Your task to perform on an android device: Open the stopwatch Image 0: 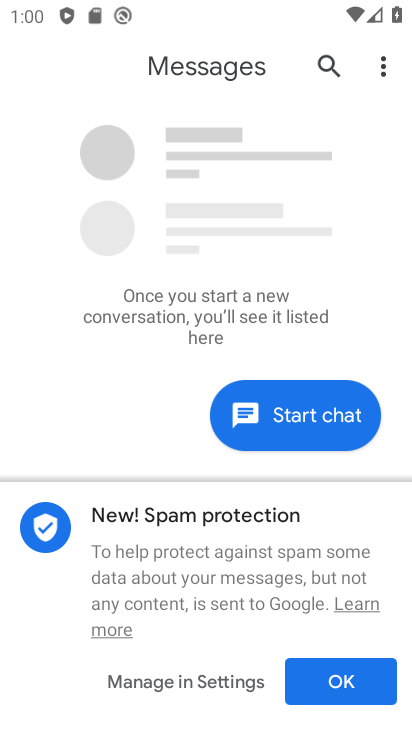
Step 0: press home button
Your task to perform on an android device: Open the stopwatch Image 1: 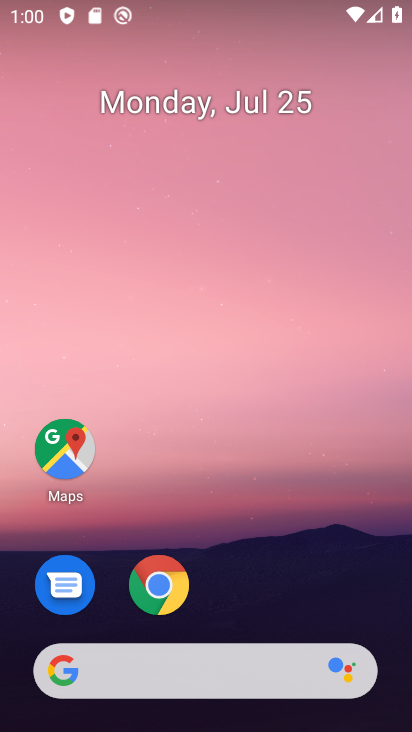
Step 1: drag from (202, 655) to (147, 17)
Your task to perform on an android device: Open the stopwatch Image 2: 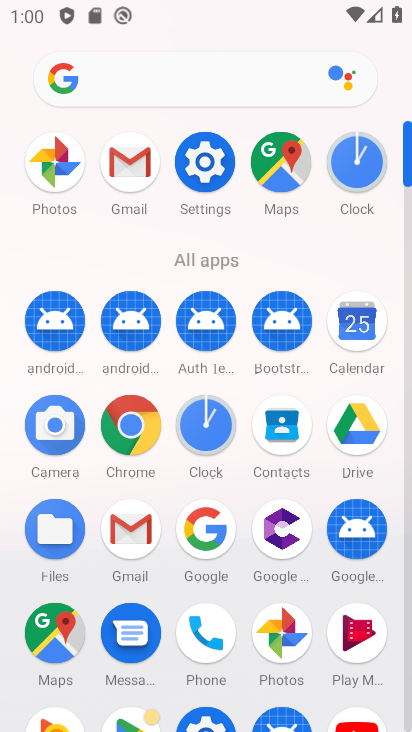
Step 2: click (212, 416)
Your task to perform on an android device: Open the stopwatch Image 3: 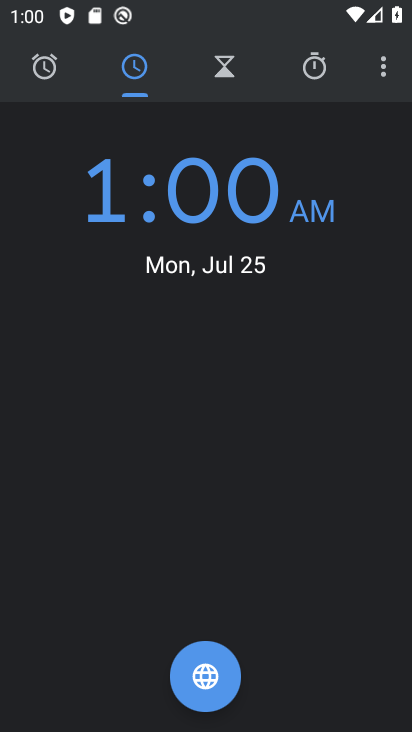
Step 3: click (307, 71)
Your task to perform on an android device: Open the stopwatch Image 4: 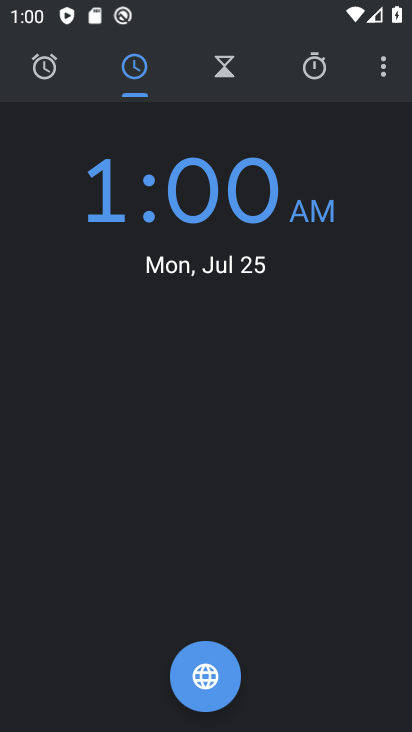
Step 4: click (322, 63)
Your task to perform on an android device: Open the stopwatch Image 5: 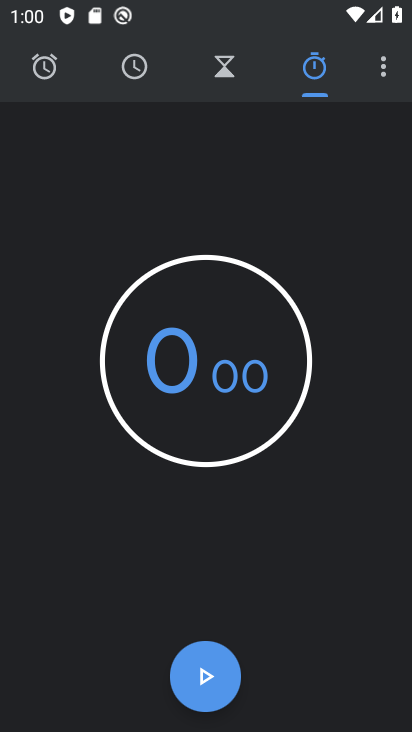
Step 5: task complete